Your task to perform on an android device: turn pop-ups on in chrome Image 0: 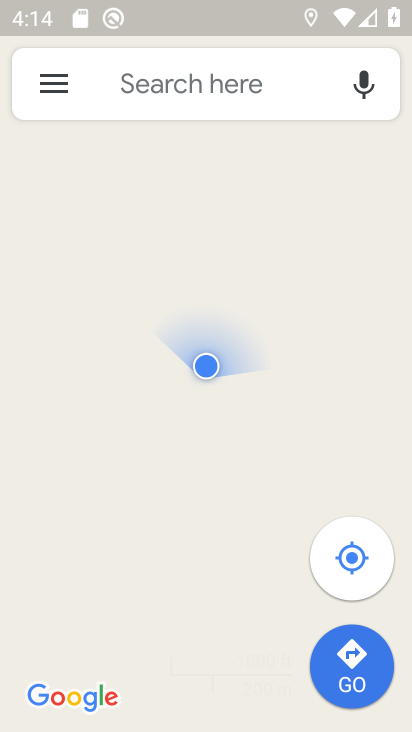
Step 0: press home button
Your task to perform on an android device: turn pop-ups on in chrome Image 1: 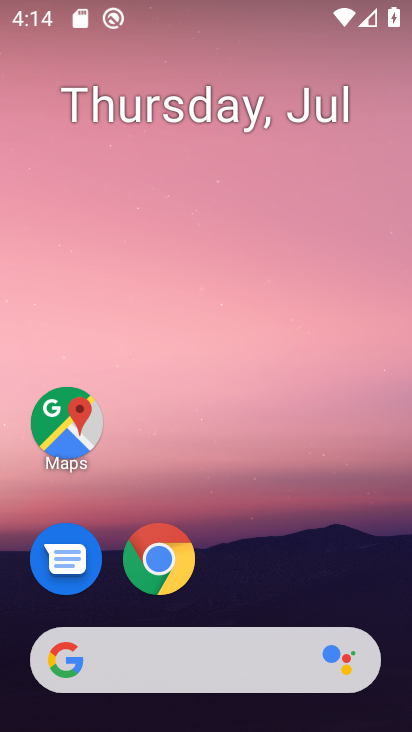
Step 1: drag from (239, 595) to (276, 312)
Your task to perform on an android device: turn pop-ups on in chrome Image 2: 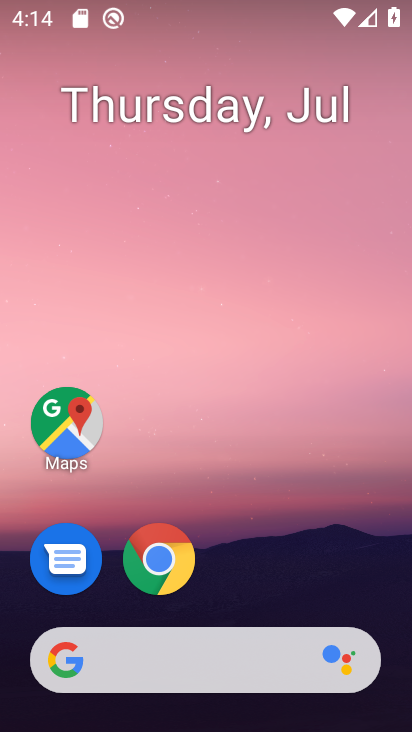
Step 2: drag from (285, 587) to (299, 264)
Your task to perform on an android device: turn pop-ups on in chrome Image 3: 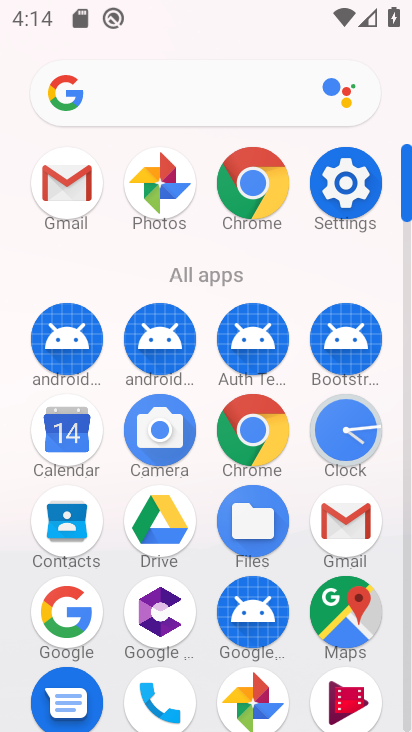
Step 3: click (255, 210)
Your task to perform on an android device: turn pop-ups on in chrome Image 4: 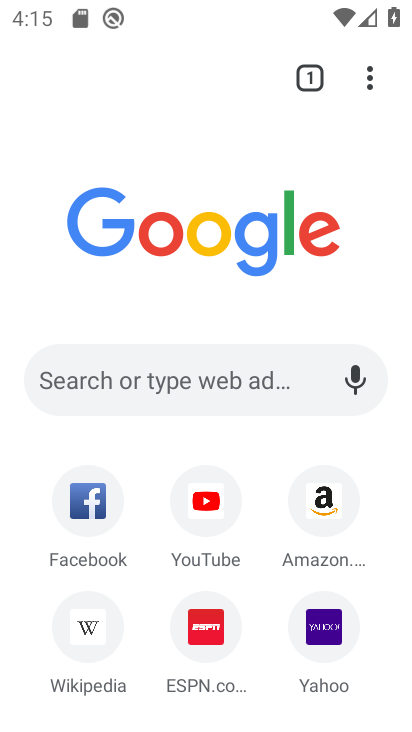
Step 4: click (363, 91)
Your task to perform on an android device: turn pop-ups on in chrome Image 5: 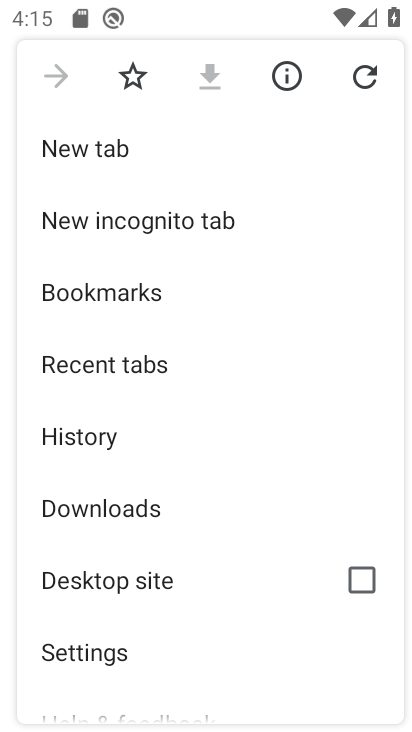
Step 5: drag from (191, 488) to (230, 237)
Your task to perform on an android device: turn pop-ups on in chrome Image 6: 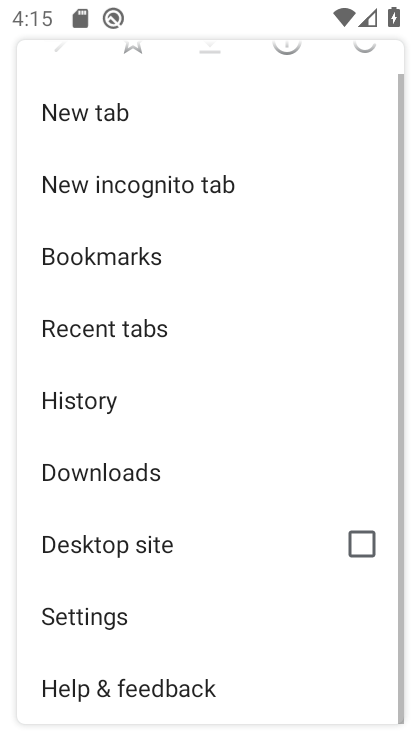
Step 6: drag from (160, 485) to (182, 300)
Your task to perform on an android device: turn pop-ups on in chrome Image 7: 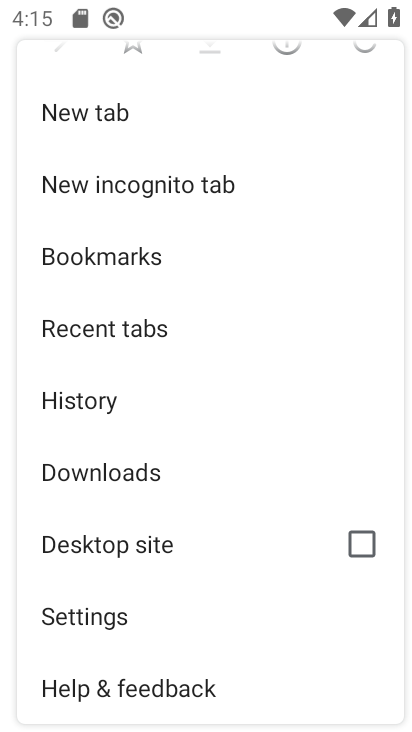
Step 7: click (107, 647)
Your task to perform on an android device: turn pop-ups on in chrome Image 8: 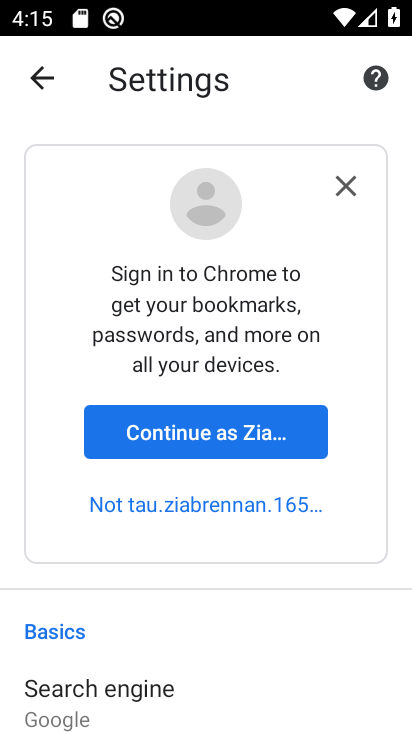
Step 8: drag from (174, 508) to (186, 354)
Your task to perform on an android device: turn pop-ups on in chrome Image 9: 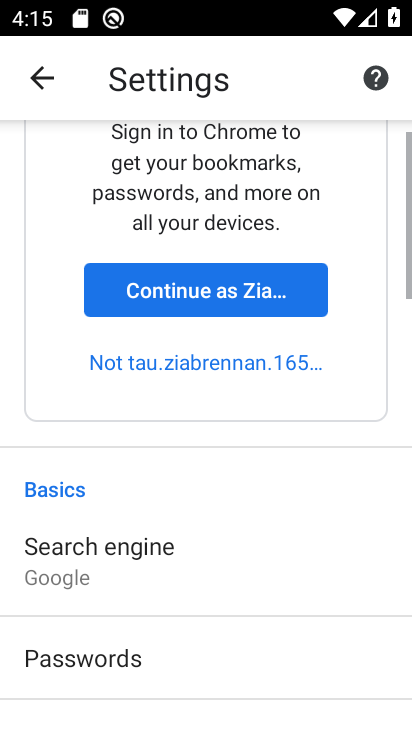
Step 9: drag from (198, 582) to (253, 341)
Your task to perform on an android device: turn pop-ups on in chrome Image 10: 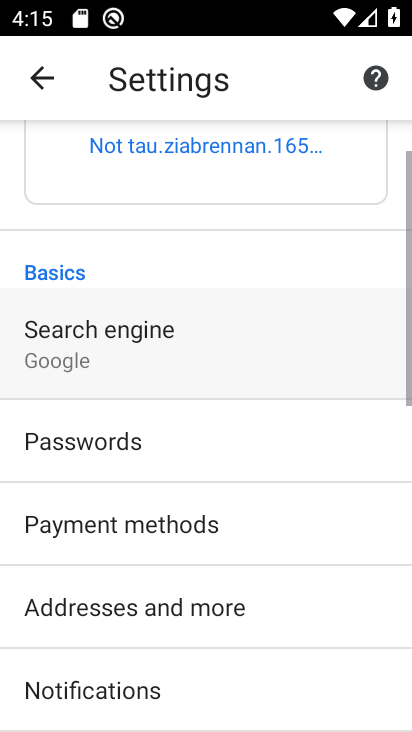
Step 10: drag from (279, 453) to (312, 199)
Your task to perform on an android device: turn pop-ups on in chrome Image 11: 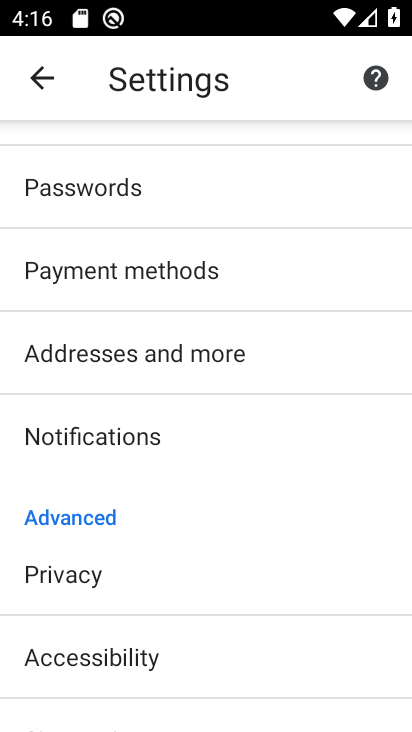
Step 11: drag from (236, 556) to (300, 62)
Your task to perform on an android device: turn pop-ups on in chrome Image 12: 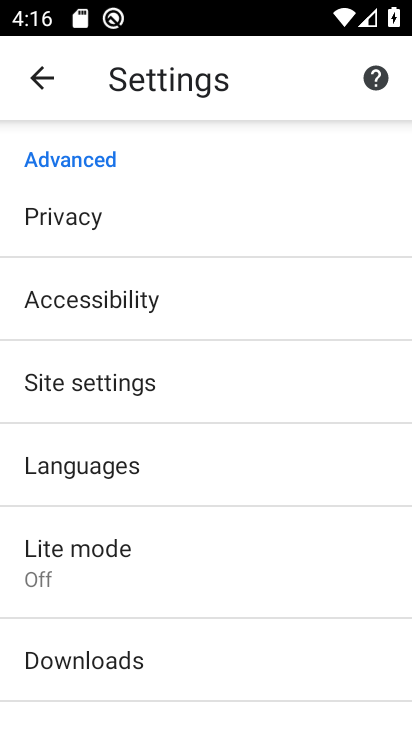
Step 12: click (121, 394)
Your task to perform on an android device: turn pop-ups on in chrome Image 13: 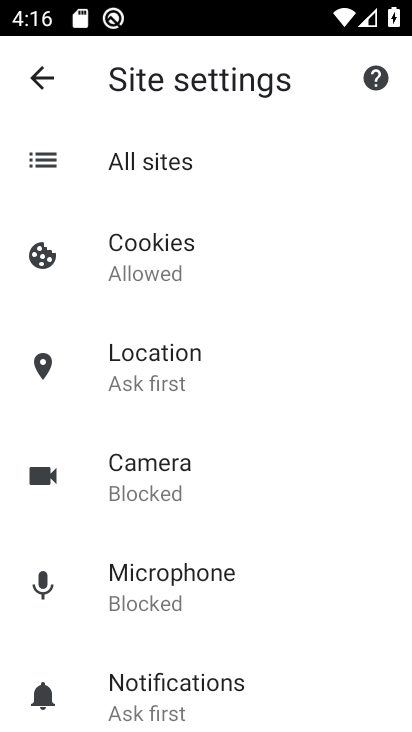
Step 13: drag from (211, 596) to (307, 227)
Your task to perform on an android device: turn pop-ups on in chrome Image 14: 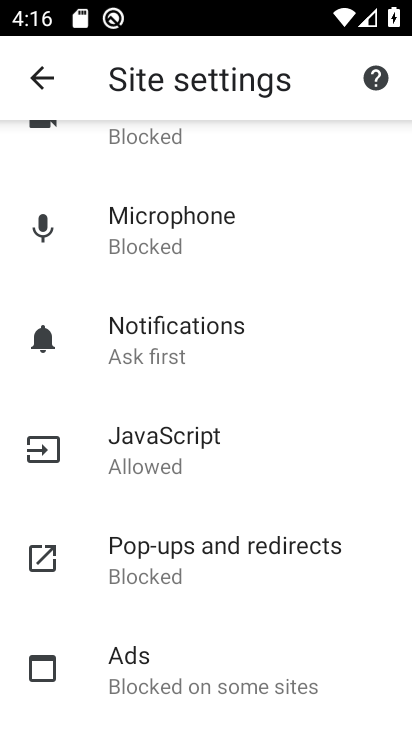
Step 14: click (264, 559)
Your task to perform on an android device: turn pop-ups on in chrome Image 15: 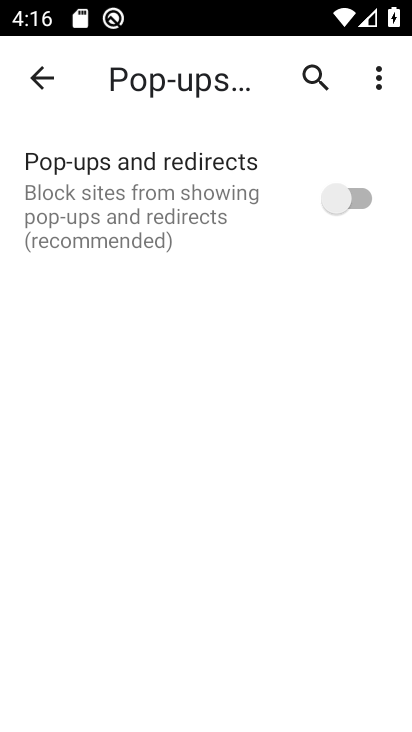
Step 15: click (342, 202)
Your task to perform on an android device: turn pop-ups on in chrome Image 16: 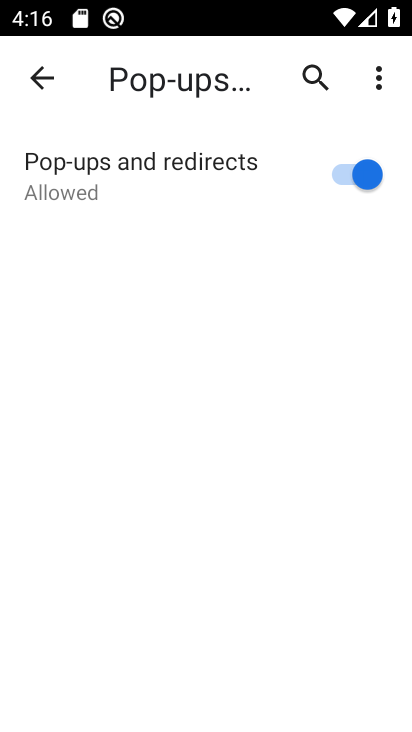
Step 16: task complete